Your task to perform on an android device: View the shopping cart on bestbuy. Add "logitech g pro" to the cart on bestbuy, then select checkout. Image 0: 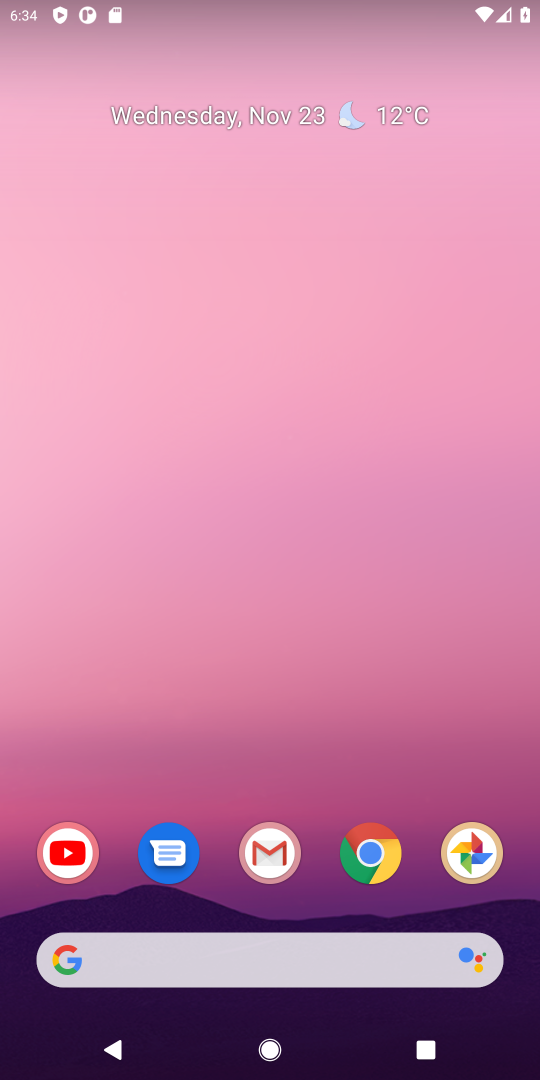
Step 0: click (377, 860)
Your task to perform on an android device: View the shopping cart on bestbuy. Add "logitech g pro" to the cart on bestbuy, then select checkout. Image 1: 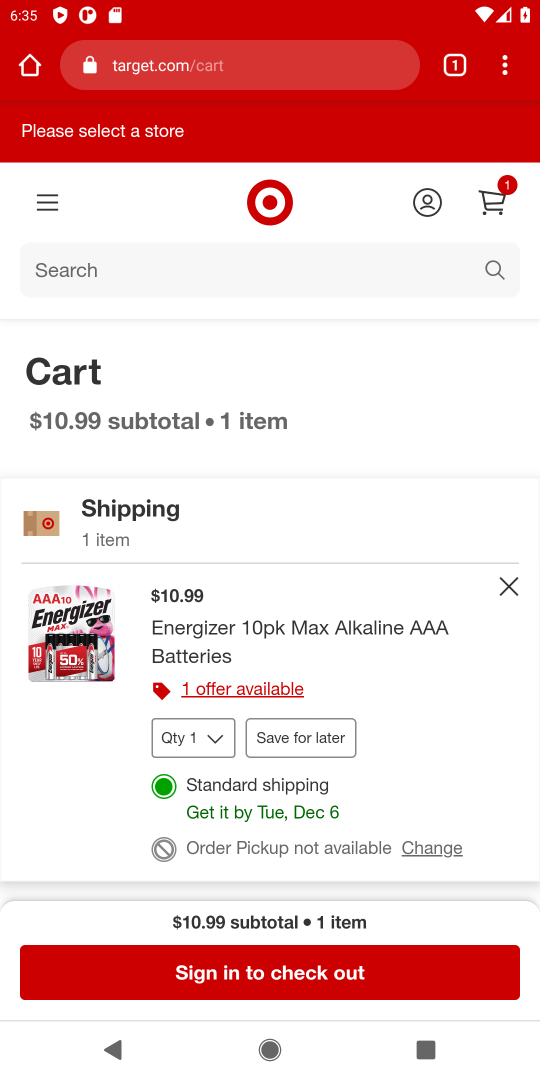
Step 1: click (169, 59)
Your task to perform on an android device: View the shopping cart on bestbuy. Add "logitech g pro" to the cart on bestbuy, then select checkout. Image 2: 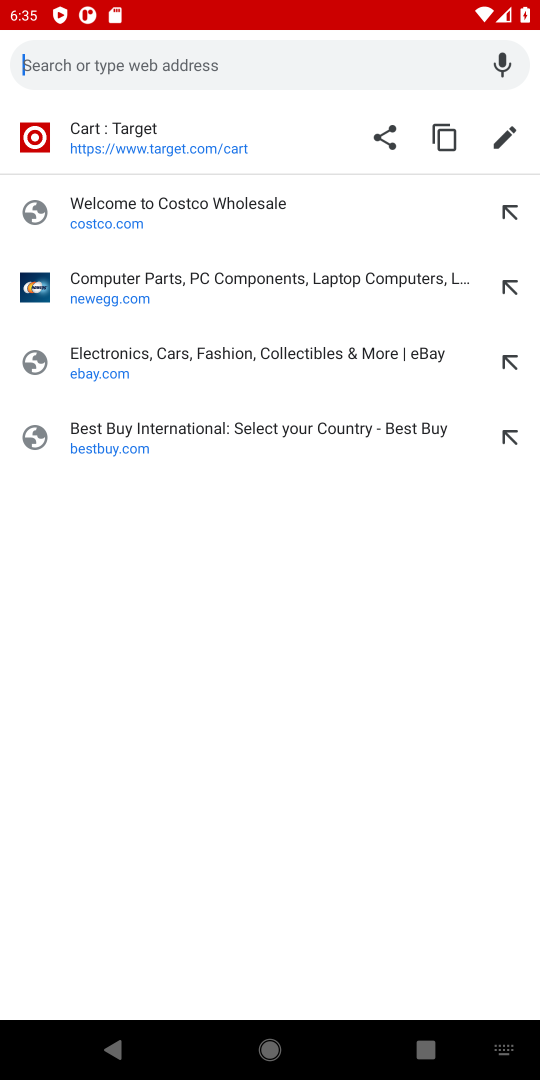
Step 2: click (96, 437)
Your task to perform on an android device: View the shopping cart on bestbuy. Add "logitech g pro" to the cart on bestbuy, then select checkout. Image 3: 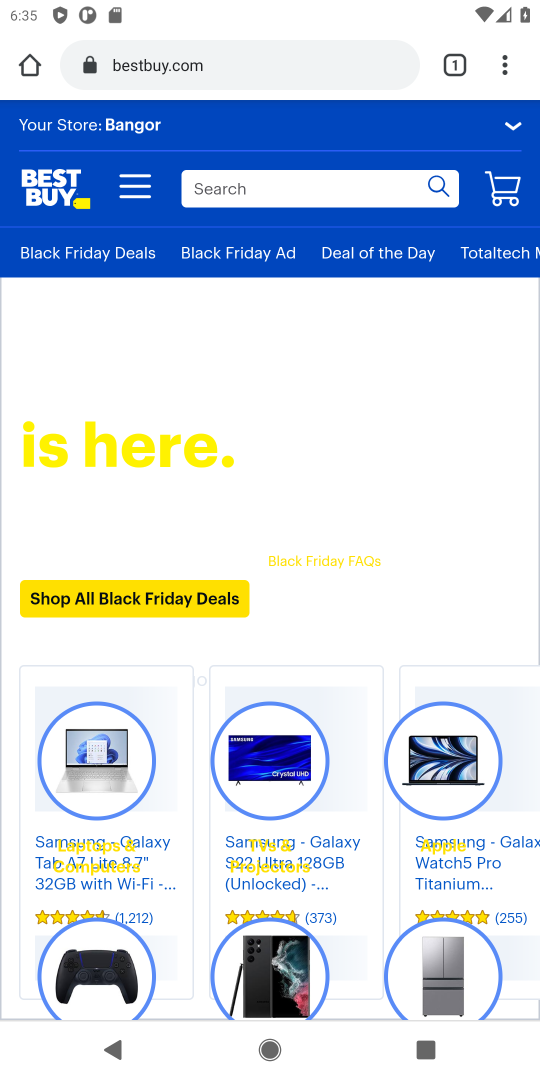
Step 3: click (505, 194)
Your task to perform on an android device: View the shopping cart on bestbuy. Add "logitech g pro" to the cart on bestbuy, then select checkout. Image 4: 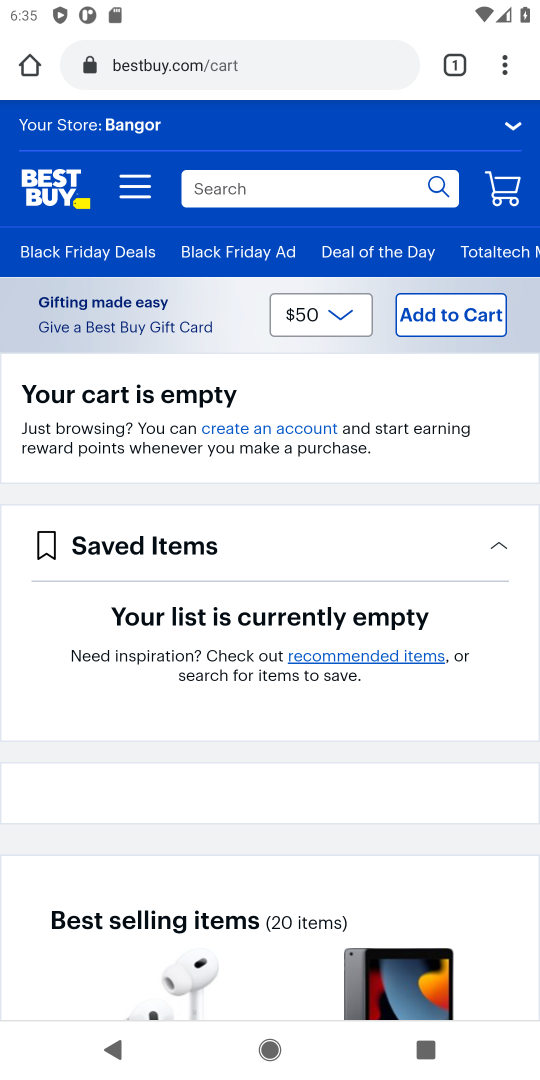
Step 4: click (231, 198)
Your task to perform on an android device: View the shopping cart on bestbuy. Add "logitech g pro" to the cart on bestbuy, then select checkout. Image 5: 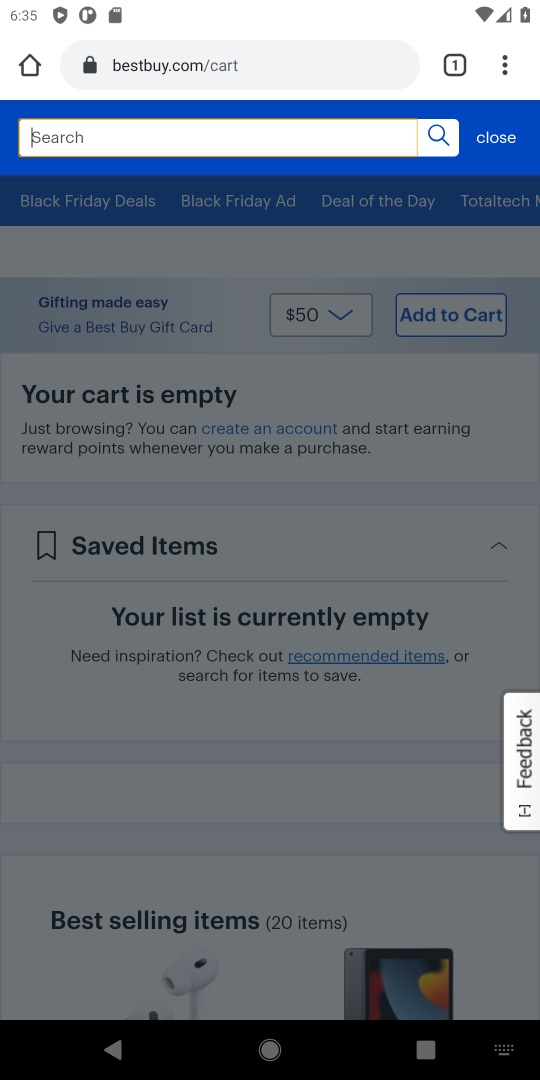
Step 5: type "logitech g pro"
Your task to perform on an android device: View the shopping cart on bestbuy. Add "logitech g pro" to the cart on bestbuy, then select checkout. Image 6: 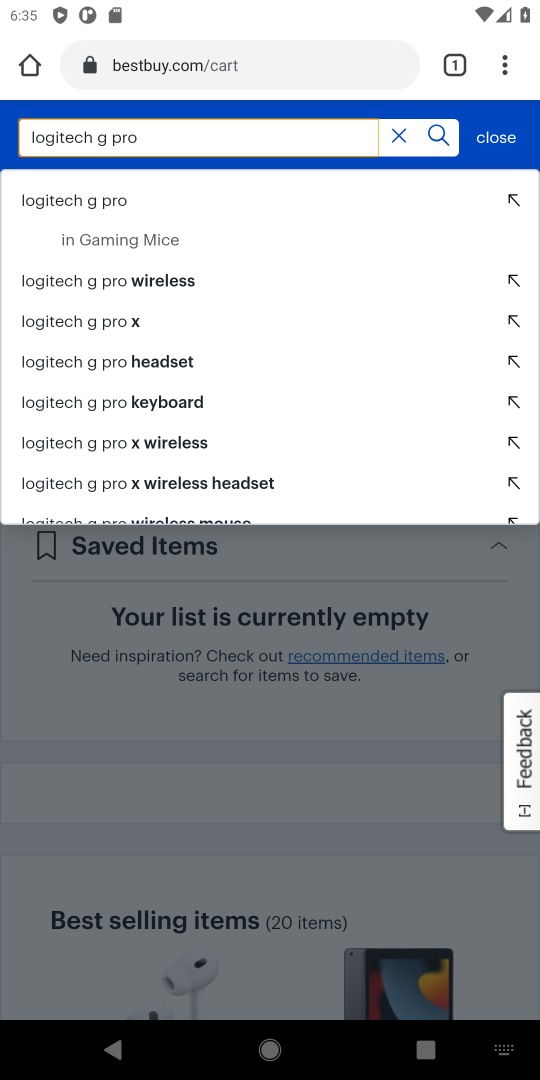
Step 6: click (74, 209)
Your task to perform on an android device: View the shopping cart on bestbuy. Add "logitech g pro" to the cart on bestbuy, then select checkout. Image 7: 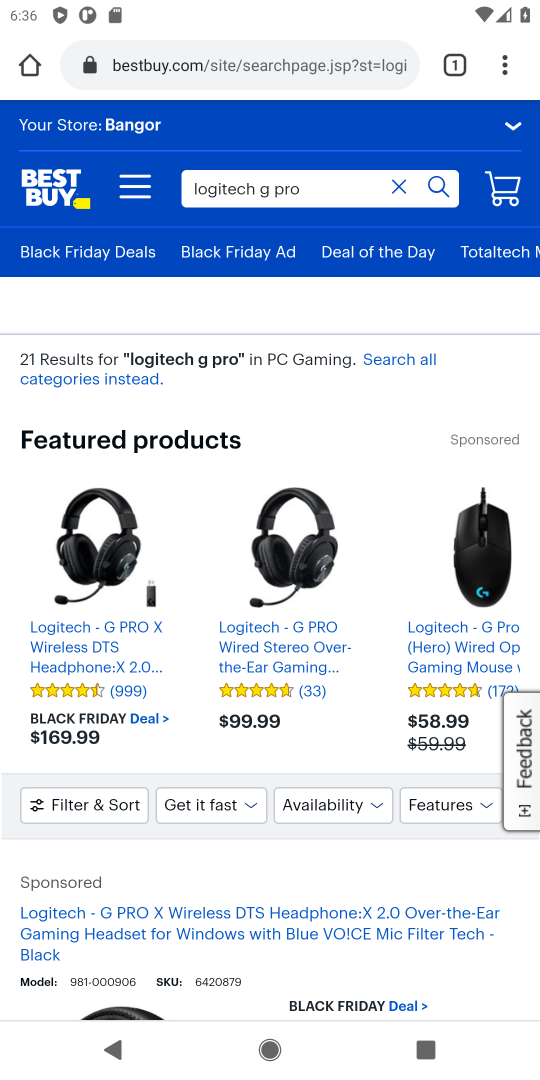
Step 7: drag from (313, 864) to (269, 415)
Your task to perform on an android device: View the shopping cart on bestbuy. Add "logitech g pro" to the cart on bestbuy, then select checkout. Image 8: 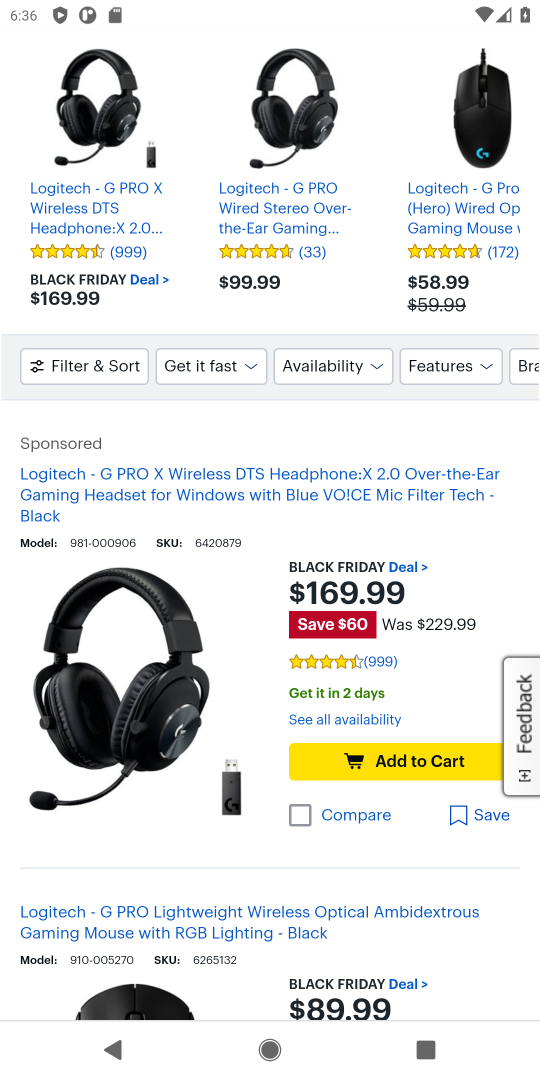
Step 8: click (405, 764)
Your task to perform on an android device: View the shopping cart on bestbuy. Add "logitech g pro" to the cart on bestbuy, then select checkout. Image 9: 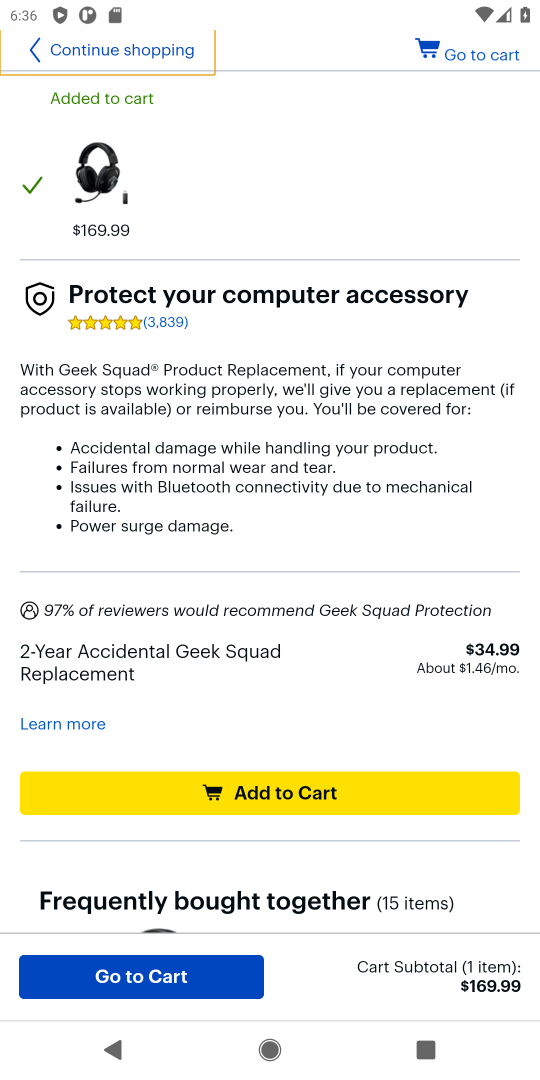
Step 9: click (465, 53)
Your task to perform on an android device: View the shopping cart on bestbuy. Add "logitech g pro" to the cart on bestbuy, then select checkout. Image 10: 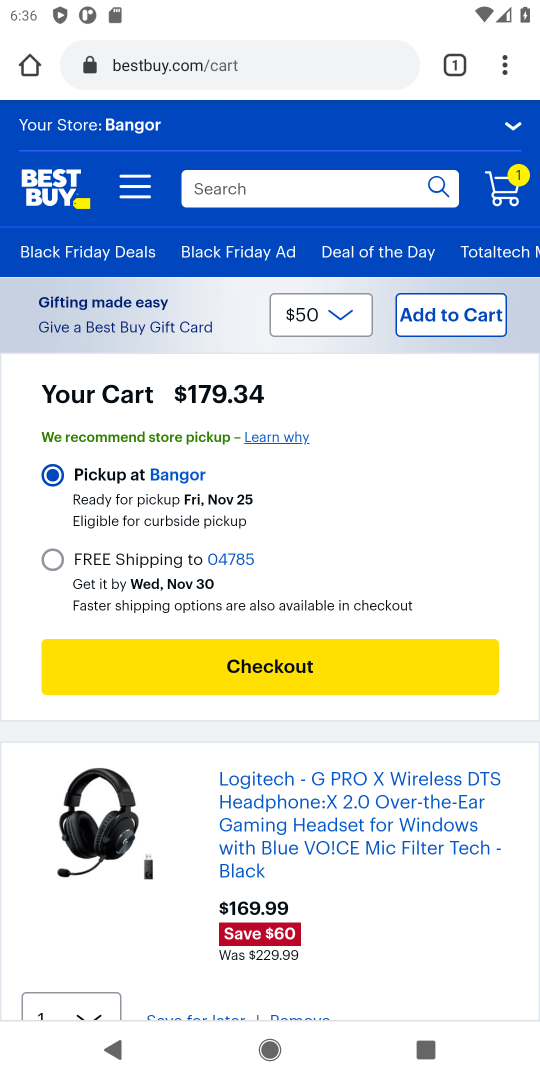
Step 10: click (277, 665)
Your task to perform on an android device: View the shopping cart on bestbuy. Add "logitech g pro" to the cart on bestbuy, then select checkout. Image 11: 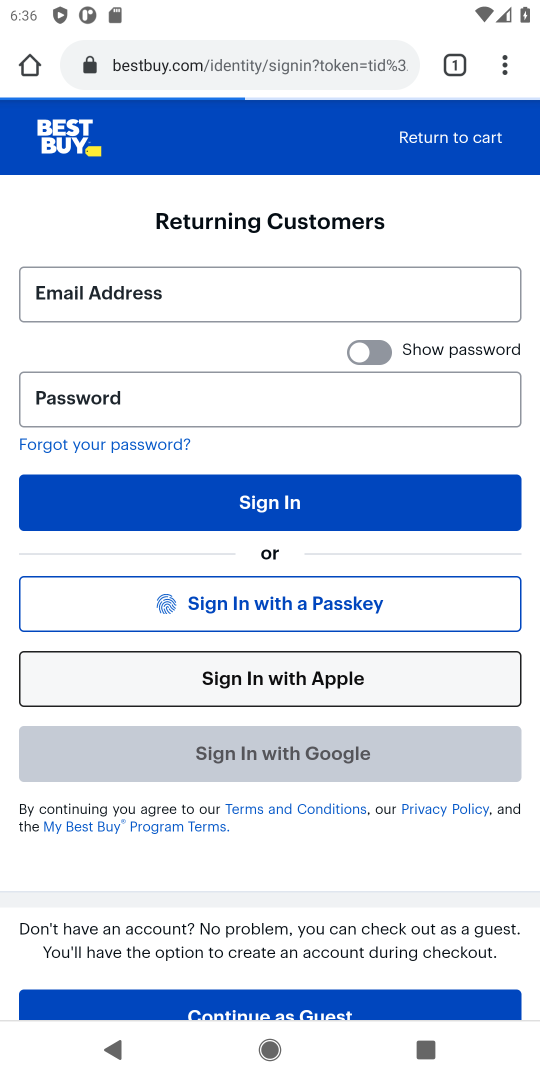
Step 11: task complete